Your task to perform on an android device: toggle airplane mode Image 0: 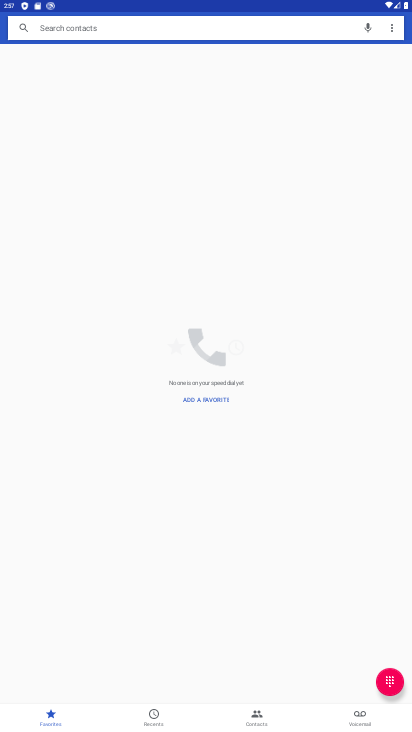
Step 0: press home button
Your task to perform on an android device: toggle airplane mode Image 1: 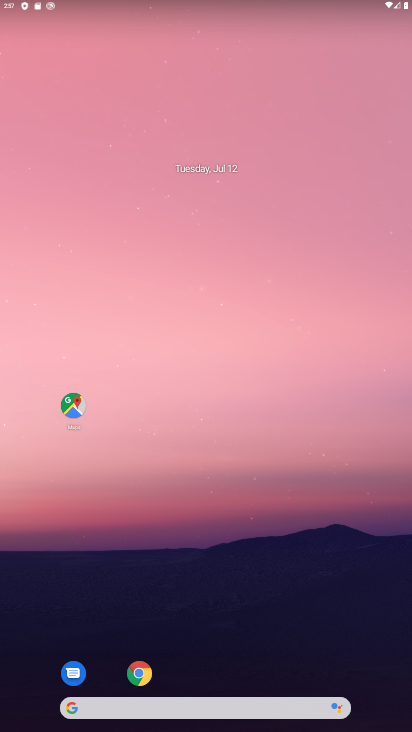
Step 1: drag from (219, 707) to (313, 290)
Your task to perform on an android device: toggle airplane mode Image 2: 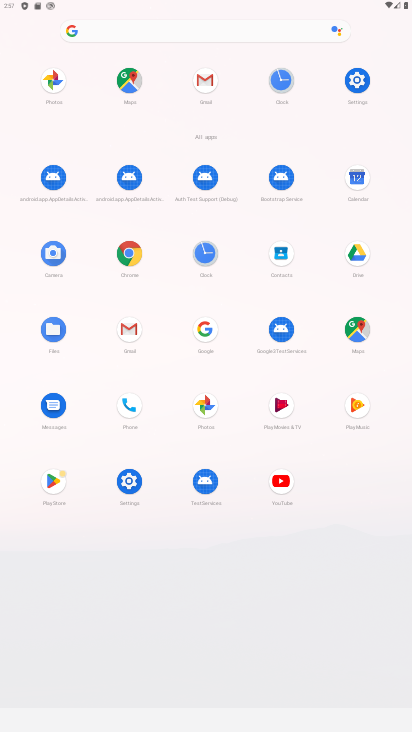
Step 2: click (357, 80)
Your task to perform on an android device: toggle airplane mode Image 3: 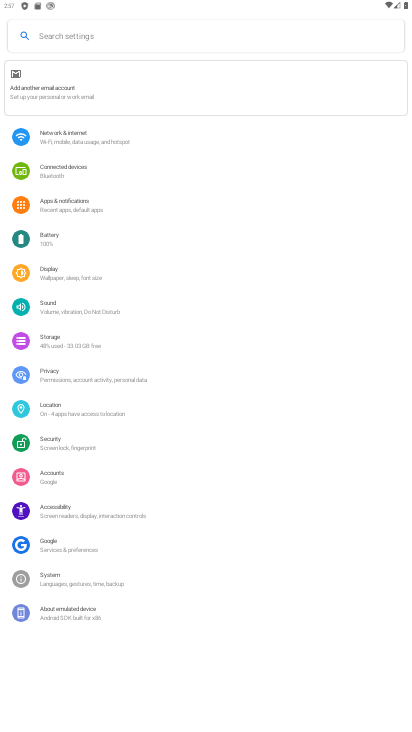
Step 3: click (82, 143)
Your task to perform on an android device: toggle airplane mode Image 4: 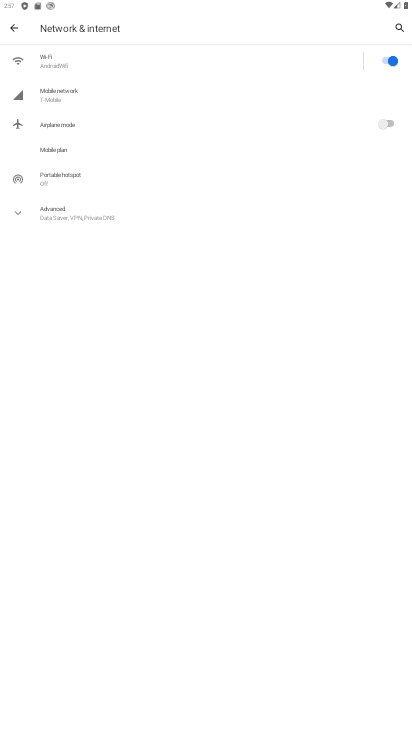
Step 4: click (384, 122)
Your task to perform on an android device: toggle airplane mode Image 5: 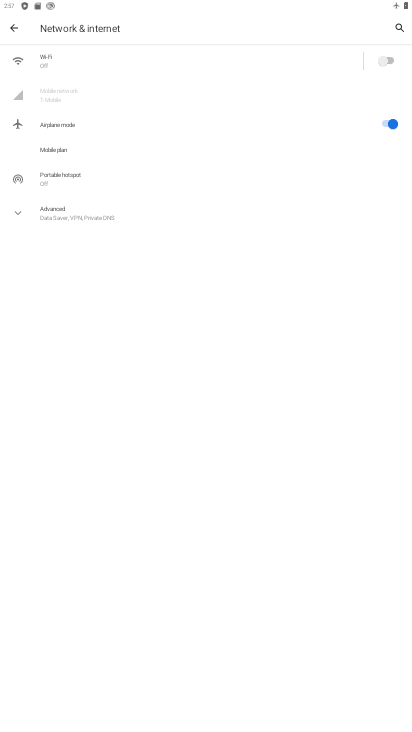
Step 5: task complete